Your task to perform on an android device: See recent photos Image 0: 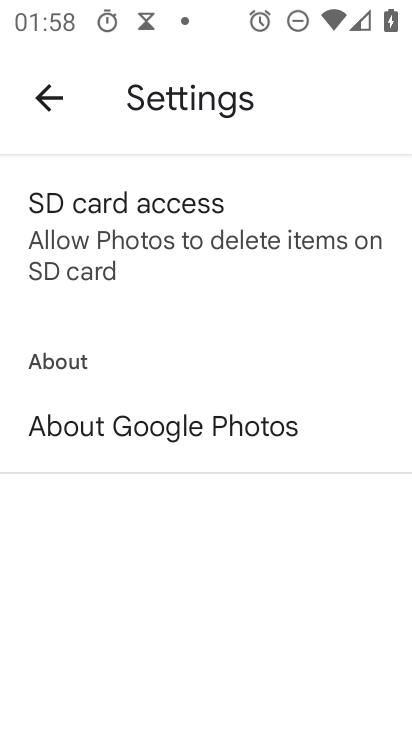
Step 0: press home button
Your task to perform on an android device: See recent photos Image 1: 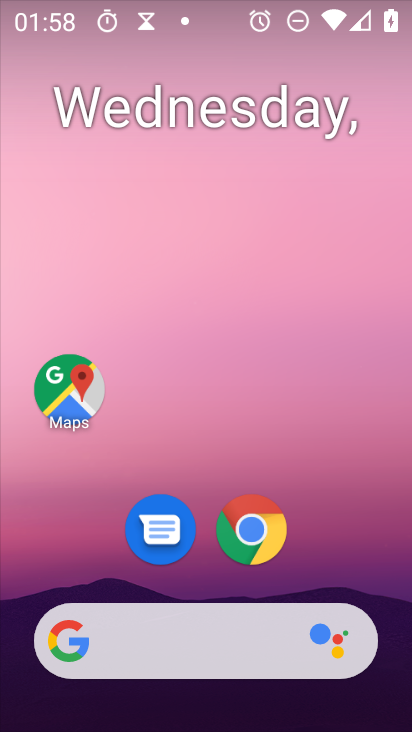
Step 1: drag from (306, 611) to (284, 38)
Your task to perform on an android device: See recent photos Image 2: 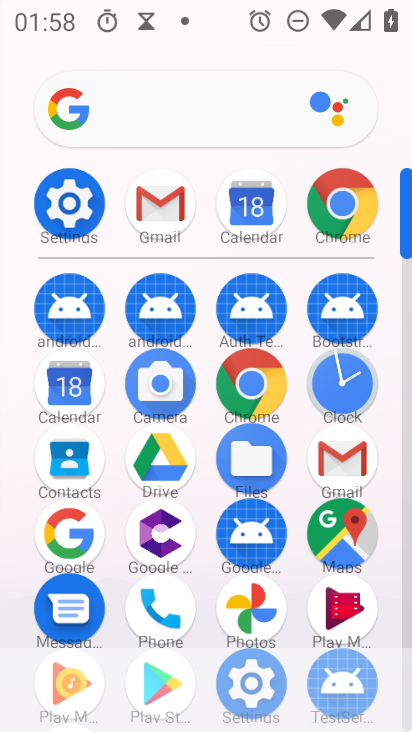
Step 2: click (265, 625)
Your task to perform on an android device: See recent photos Image 3: 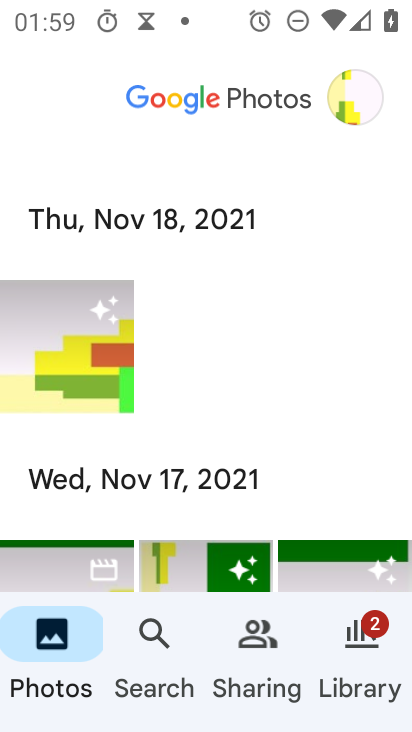
Step 3: task complete